Your task to perform on an android device: Open sound settings Image 0: 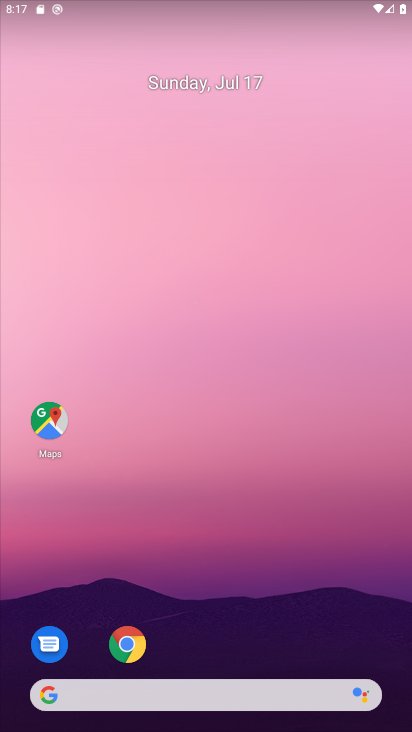
Step 0: drag from (225, 552) to (83, 13)
Your task to perform on an android device: Open sound settings Image 1: 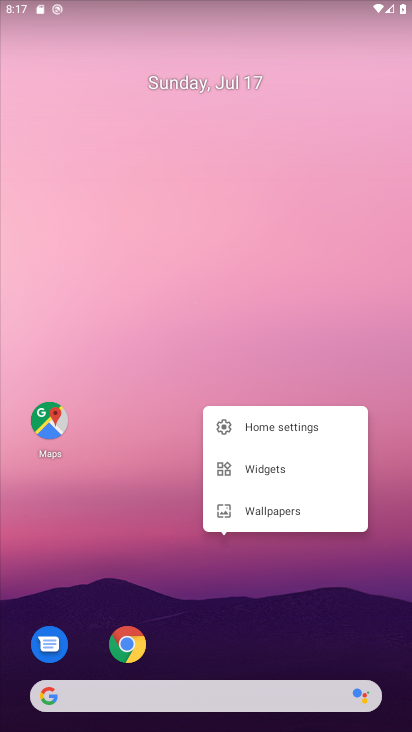
Step 1: click (160, 461)
Your task to perform on an android device: Open sound settings Image 2: 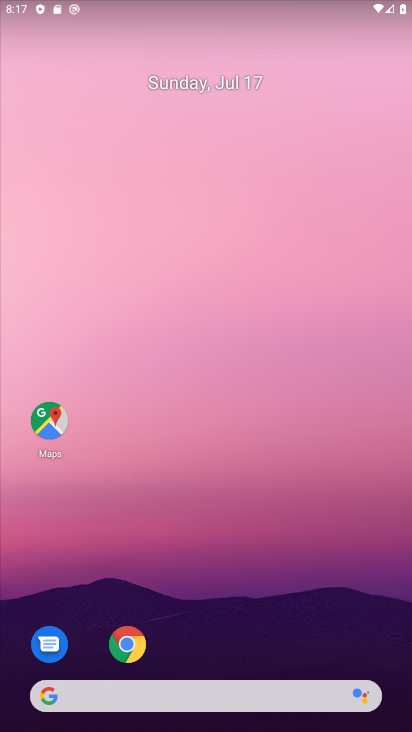
Step 2: drag from (213, 630) to (161, 187)
Your task to perform on an android device: Open sound settings Image 3: 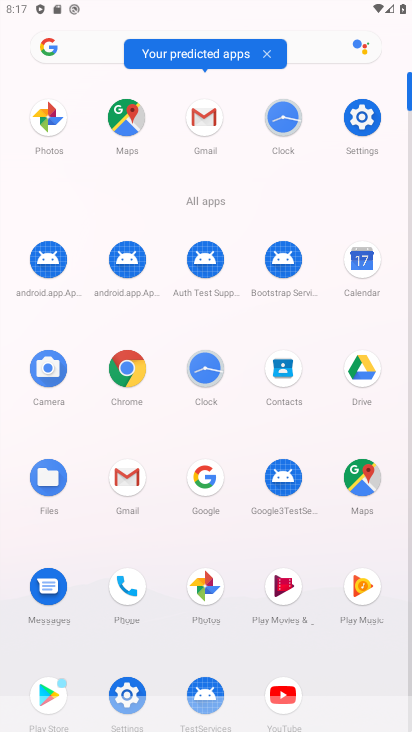
Step 3: click (363, 122)
Your task to perform on an android device: Open sound settings Image 4: 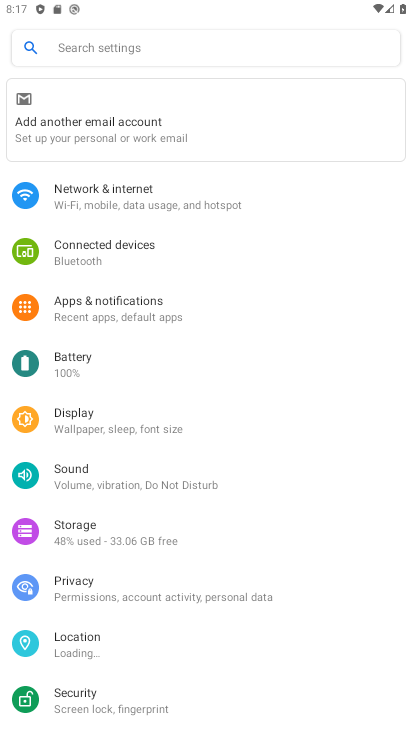
Step 4: click (61, 469)
Your task to perform on an android device: Open sound settings Image 5: 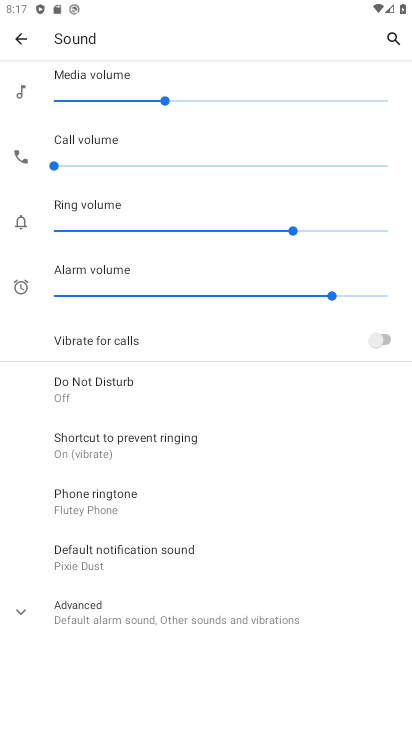
Step 5: task complete